Your task to perform on an android device: Open internet settings Image 0: 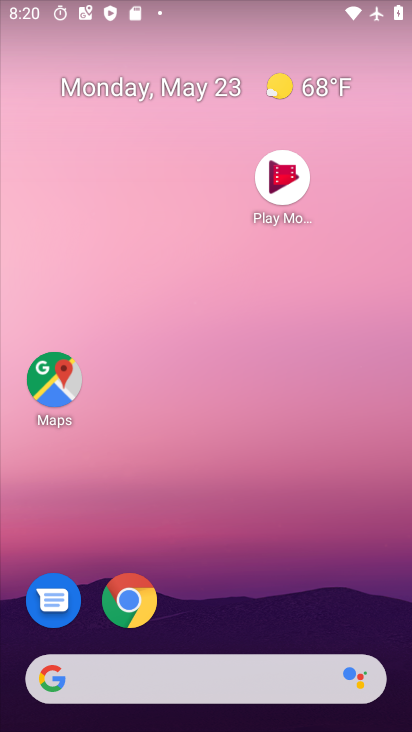
Step 0: drag from (289, 324) to (283, 58)
Your task to perform on an android device: Open internet settings Image 1: 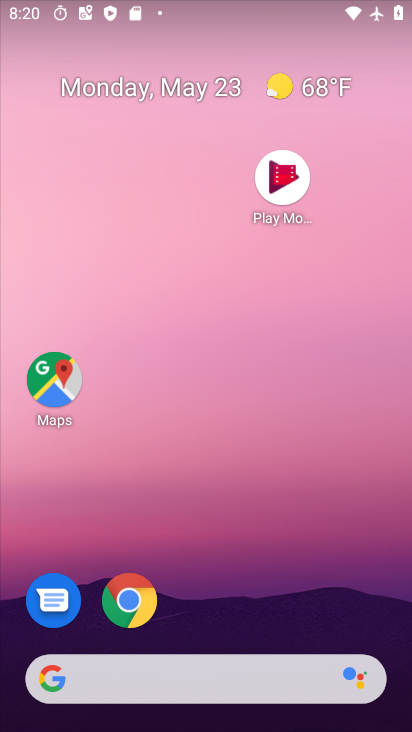
Step 1: drag from (294, 679) to (250, 82)
Your task to perform on an android device: Open internet settings Image 2: 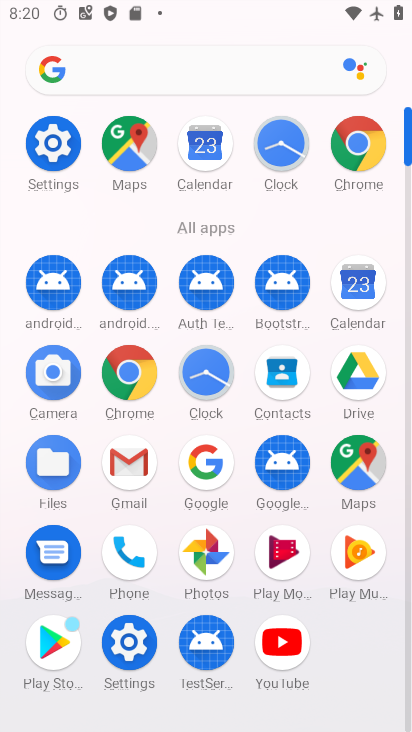
Step 2: click (60, 139)
Your task to perform on an android device: Open internet settings Image 3: 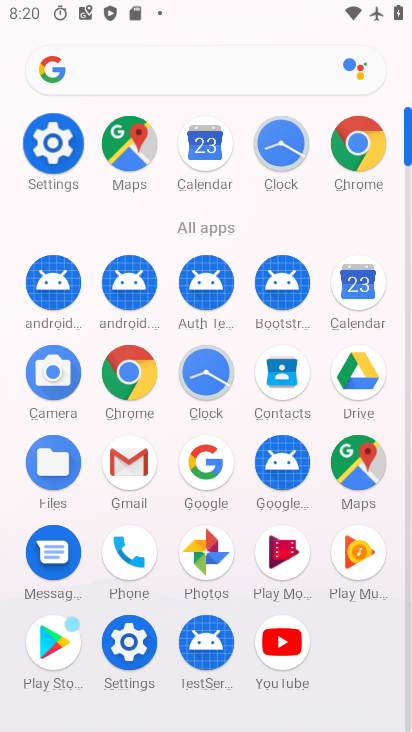
Step 3: click (66, 149)
Your task to perform on an android device: Open internet settings Image 4: 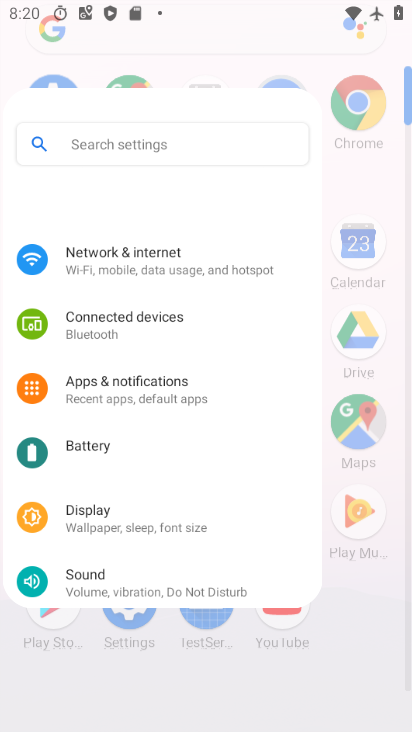
Step 4: click (65, 156)
Your task to perform on an android device: Open internet settings Image 5: 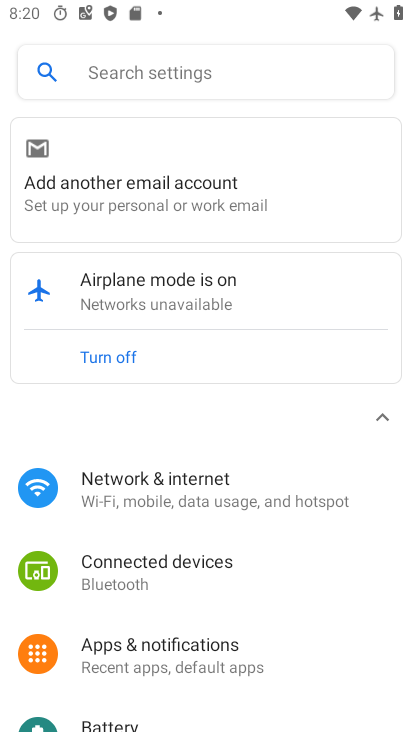
Step 5: click (177, 483)
Your task to perform on an android device: Open internet settings Image 6: 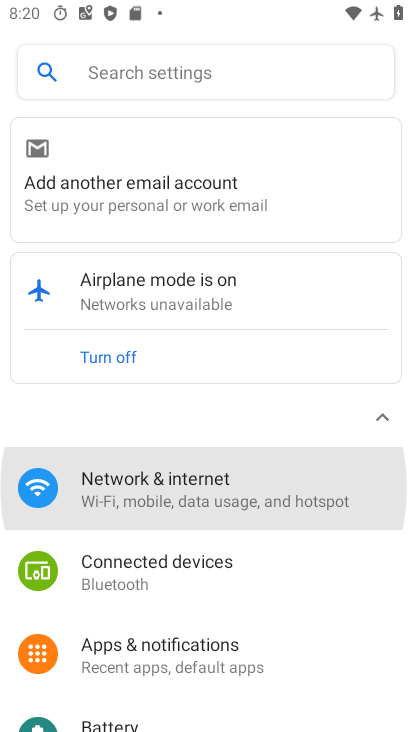
Step 6: click (177, 483)
Your task to perform on an android device: Open internet settings Image 7: 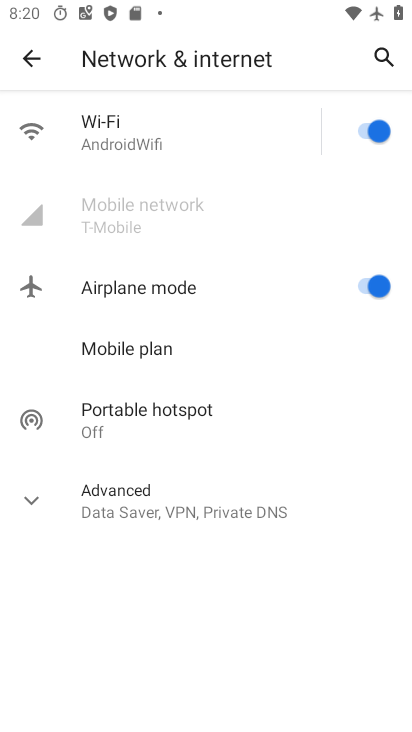
Step 7: click (177, 481)
Your task to perform on an android device: Open internet settings Image 8: 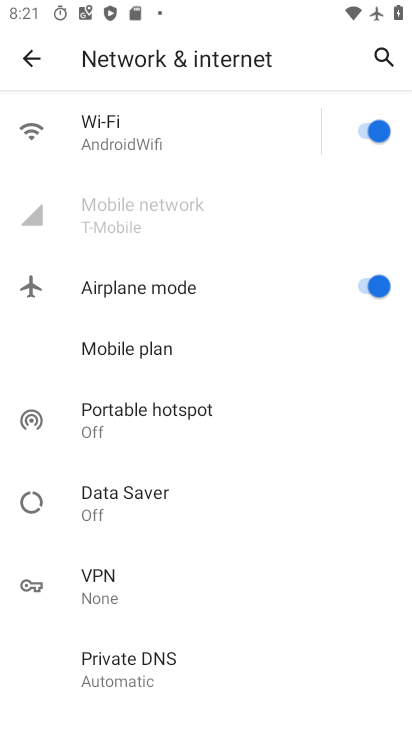
Step 8: click (365, 287)
Your task to perform on an android device: Open internet settings Image 9: 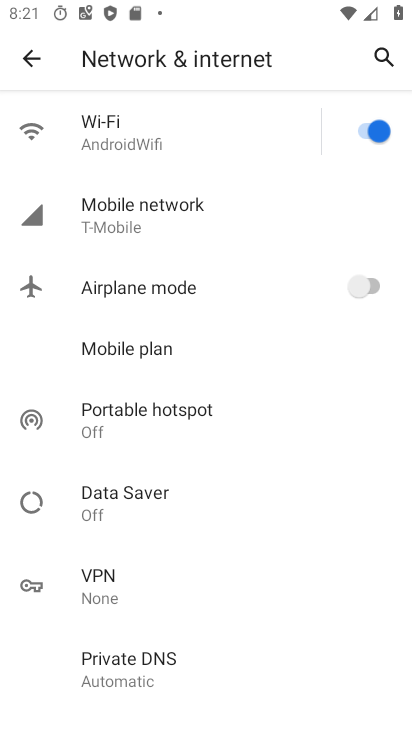
Step 9: click (147, 223)
Your task to perform on an android device: Open internet settings Image 10: 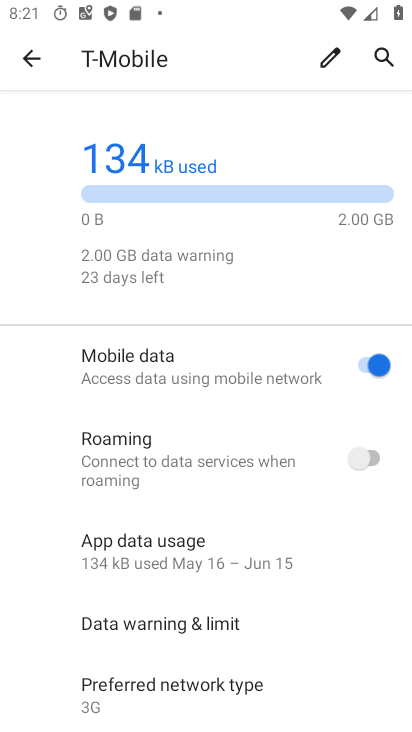
Step 10: task complete